Your task to perform on an android device: Open privacy settings Image 0: 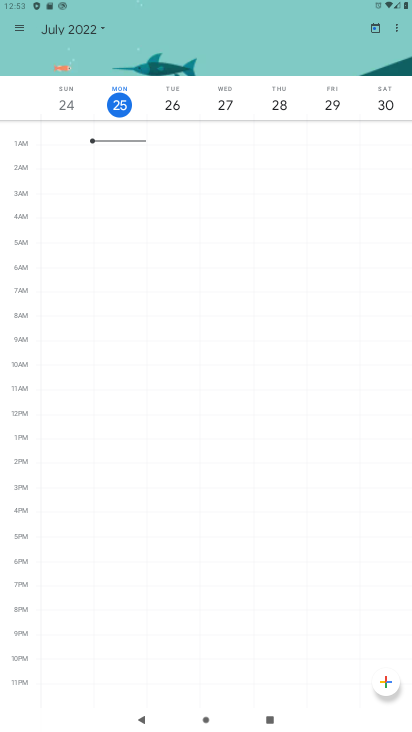
Step 0: press home button
Your task to perform on an android device: Open privacy settings Image 1: 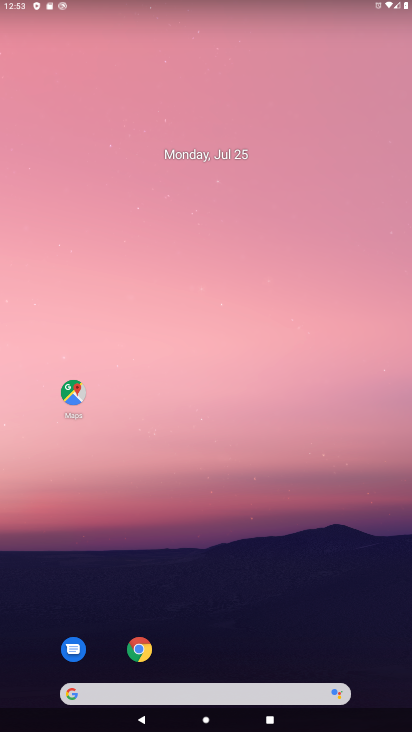
Step 1: drag from (286, 638) to (242, 129)
Your task to perform on an android device: Open privacy settings Image 2: 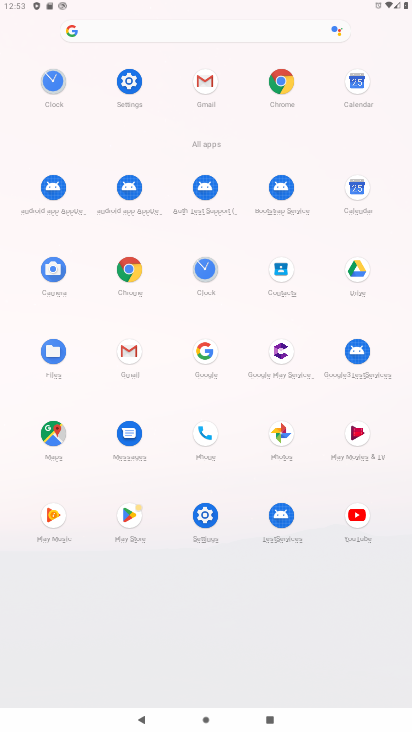
Step 2: click (137, 76)
Your task to perform on an android device: Open privacy settings Image 3: 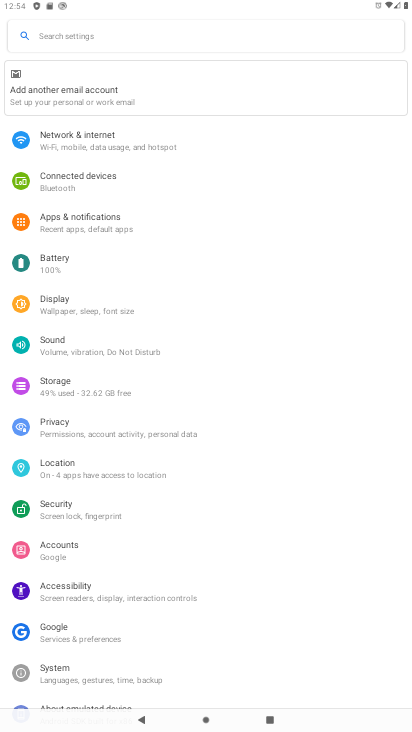
Step 3: click (87, 416)
Your task to perform on an android device: Open privacy settings Image 4: 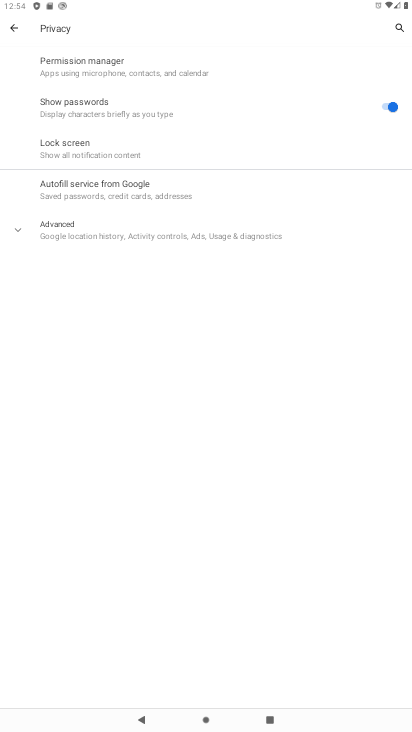
Step 4: task complete